Your task to perform on an android device: Open calendar and show me the second week of next month Image 0: 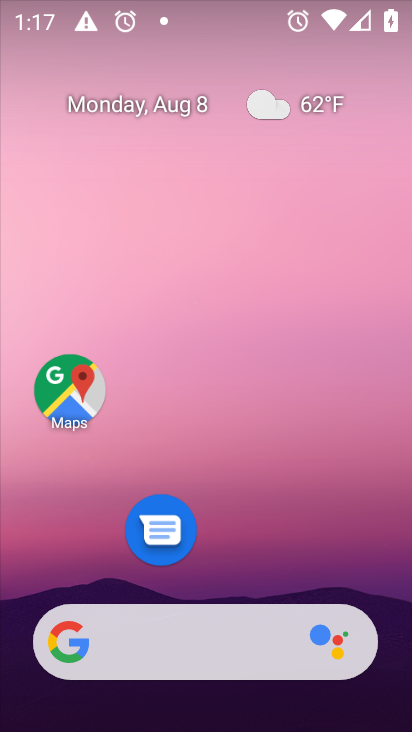
Step 0: drag from (221, 523) to (247, 101)
Your task to perform on an android device: Open calendar and show me the second week of next month Image 1: 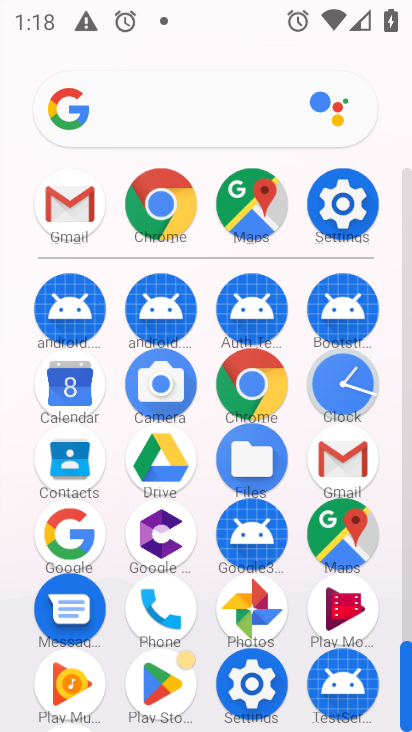
Step 1: click (70, 398)
Your task to perform on an android device: Open calendar and show me the second week of next month Image 2: 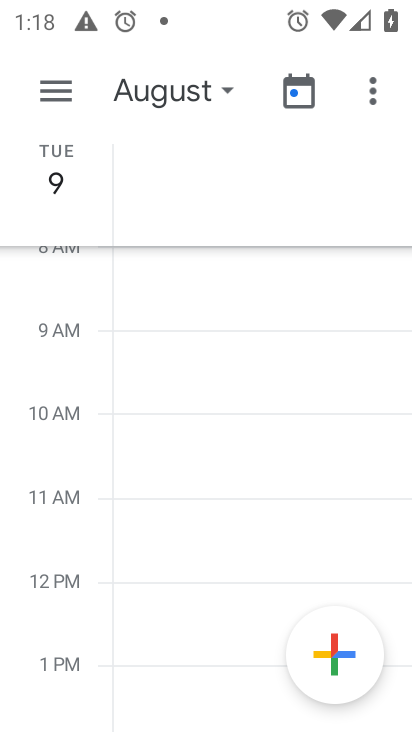
Step 2: click (224, 86)
Your task to perform on an android device: Open calendar and show me the second week of next month Image 3: 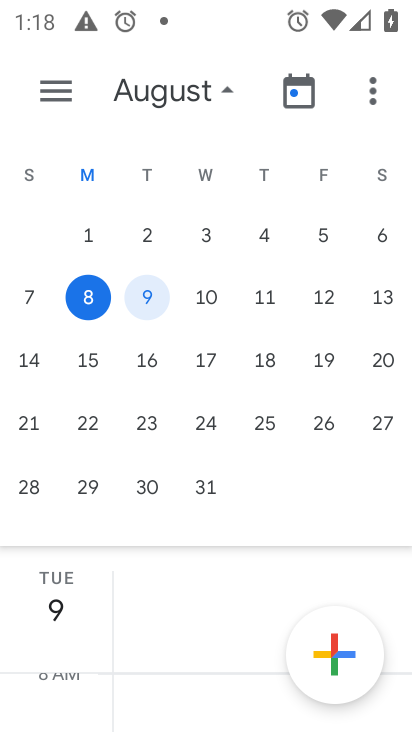
Step 3: drag from (344, 367) to (82, 382)
Your task to perform on an android device: Open calendar and show me the second week of next month Image 4: 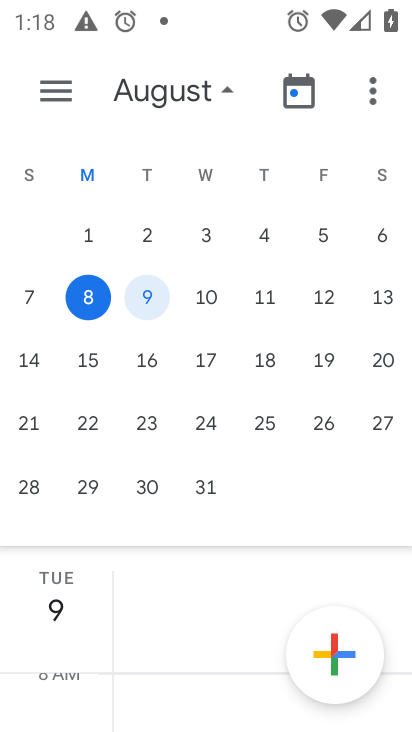
Step 4: drag from (340, 292) to (57, 304)
Your task to perform on an android device: Open calendar and show me the second week of next month Image 5: 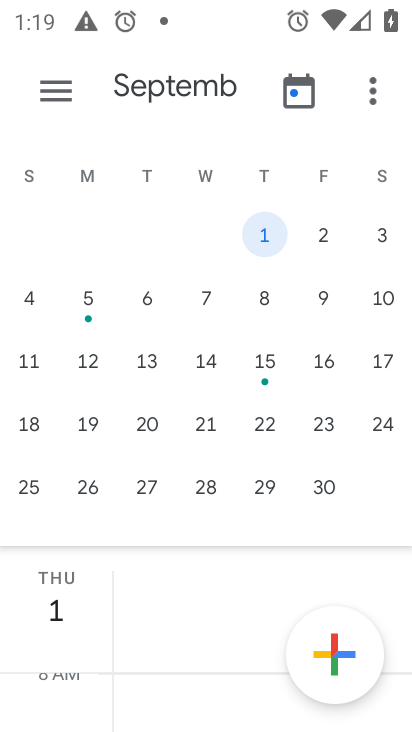
Step 5: click (88, 362)
Your task to perform on an android device: Open calendar and show me the second week of next month Image 6: 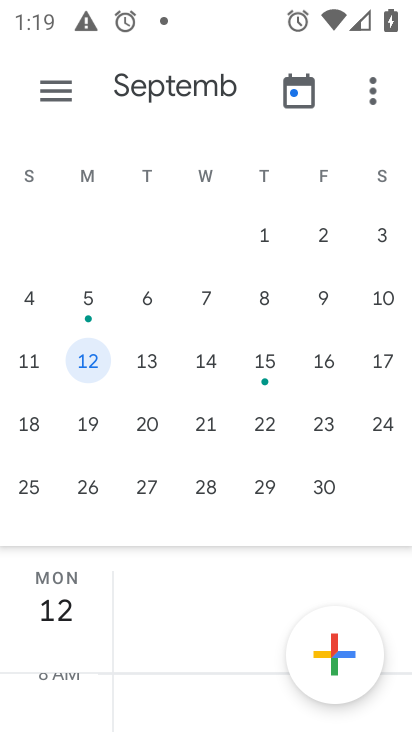
Step 6: click (51, 86)
Your task to perform on an android device: Open calendar and show me the second week of next month Image 7: 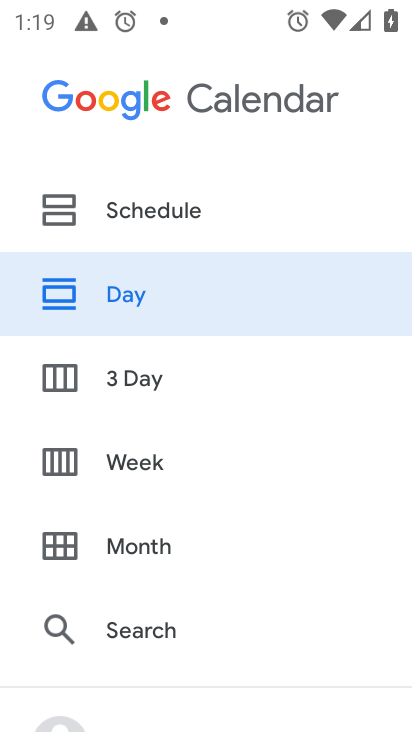
Step 7: click (149, 466)
Your task to perform on an android device: Open calendar and show me the second week of next month Image 8: 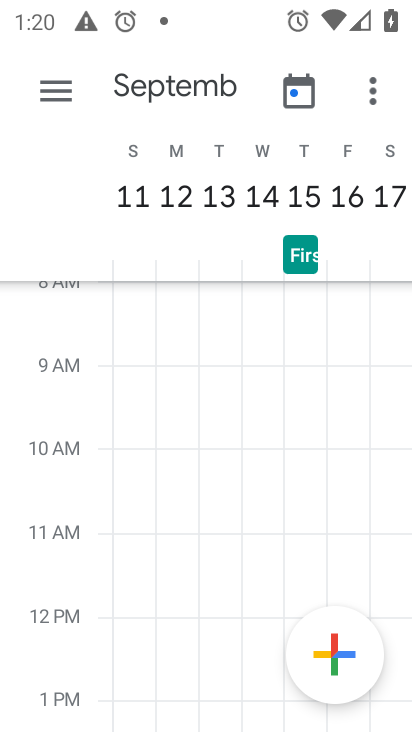
Step 8: task complete